Your task to perform on an android device: Open Yahoo.com Image 0: 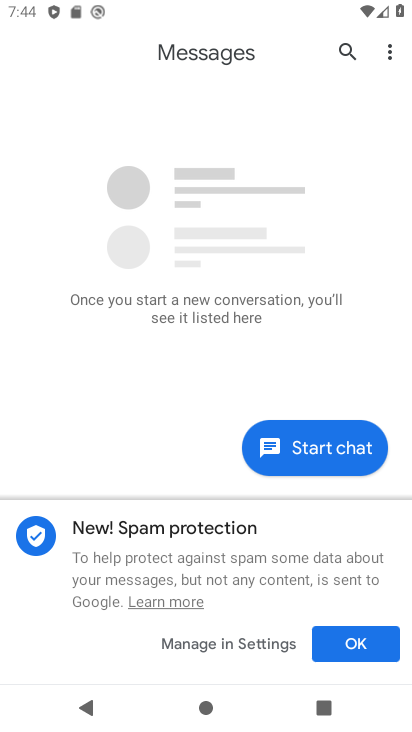
Step 0: press home button
Your task to perform on an android device: Open Yahoo.com Image 1: 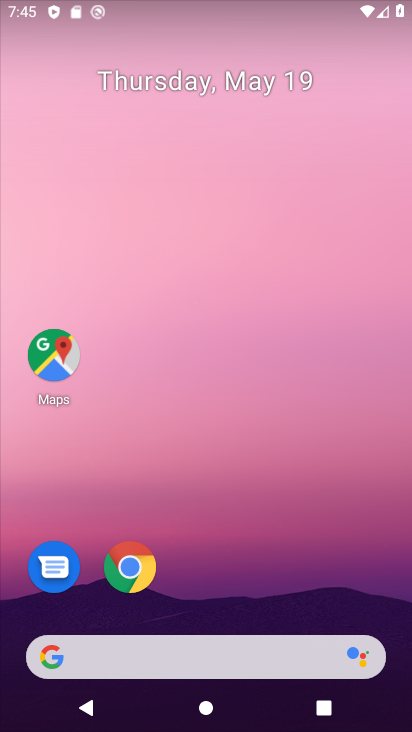
Step 1: click (139, 539)
Your task to perform on an android device: Open Yahoo.com Image 2: 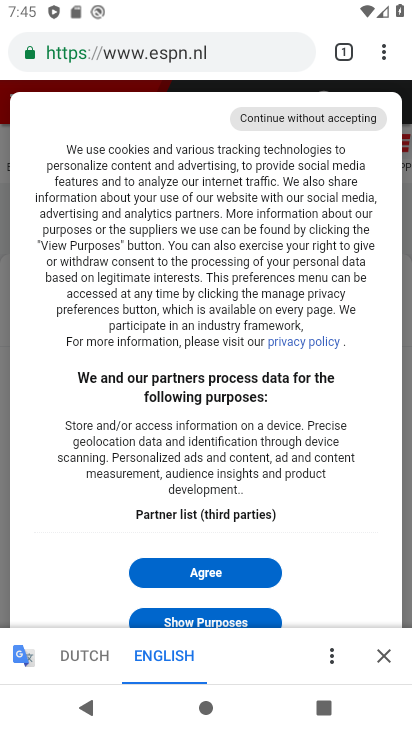
Step 2: click (351, 52)
Your task to perform on an android device: Open Yahoo.com Image 3: 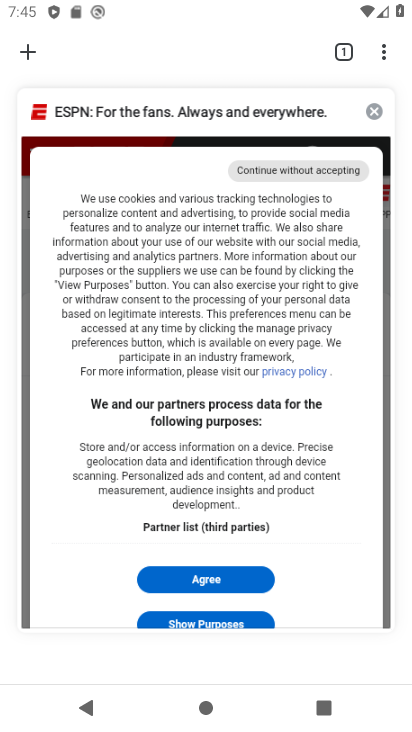
Step 3: click (19, 48)
Your task to perform on an android device: Open Yahoo.com Image 4: 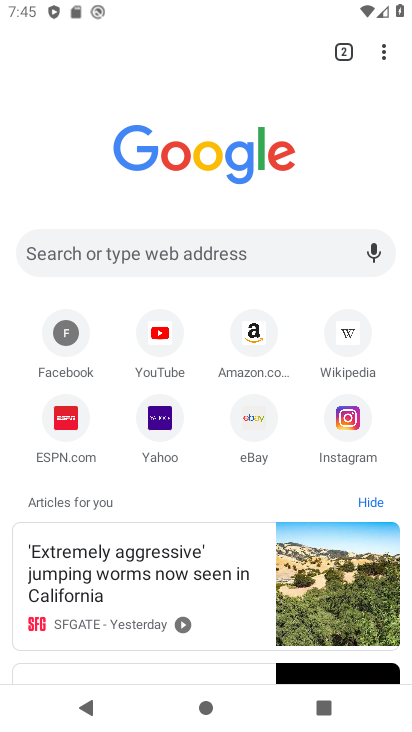
Step 4: click (163, 417)
Your task to perform on an android device: Open Yahoo.com Image 5: 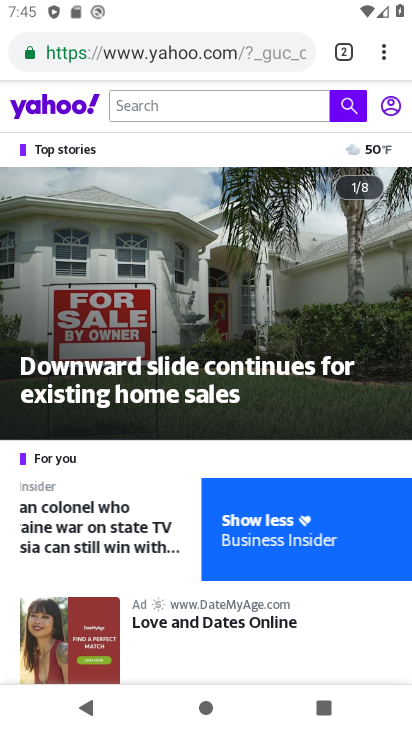
Step 5: task complete